Your task to perform on an android device: Open network settings Image 0: 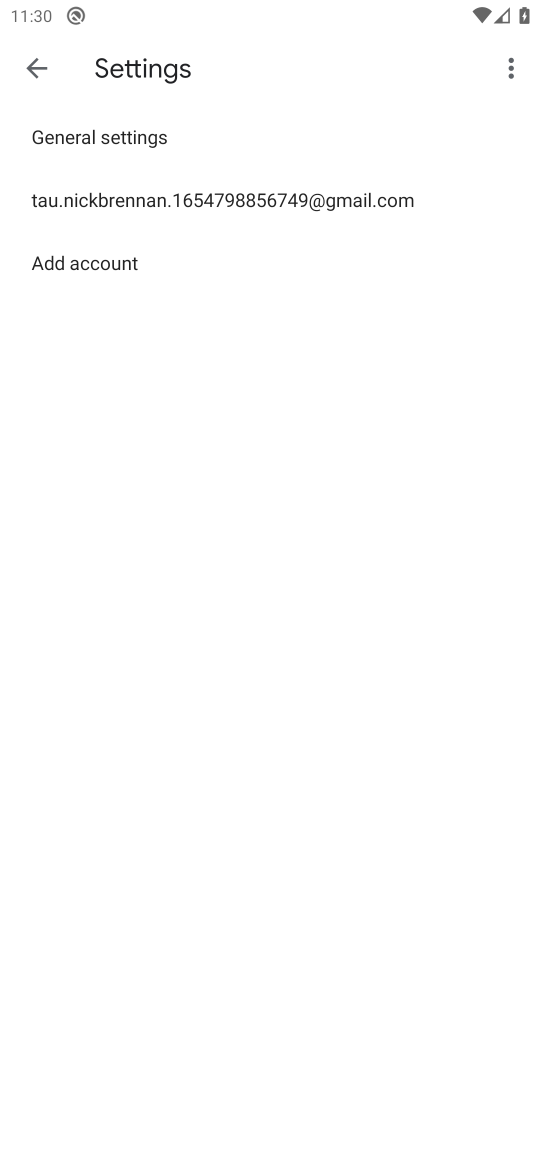
Step 0: press home button
Your task to perform on an android device: Open network settings Image 1: 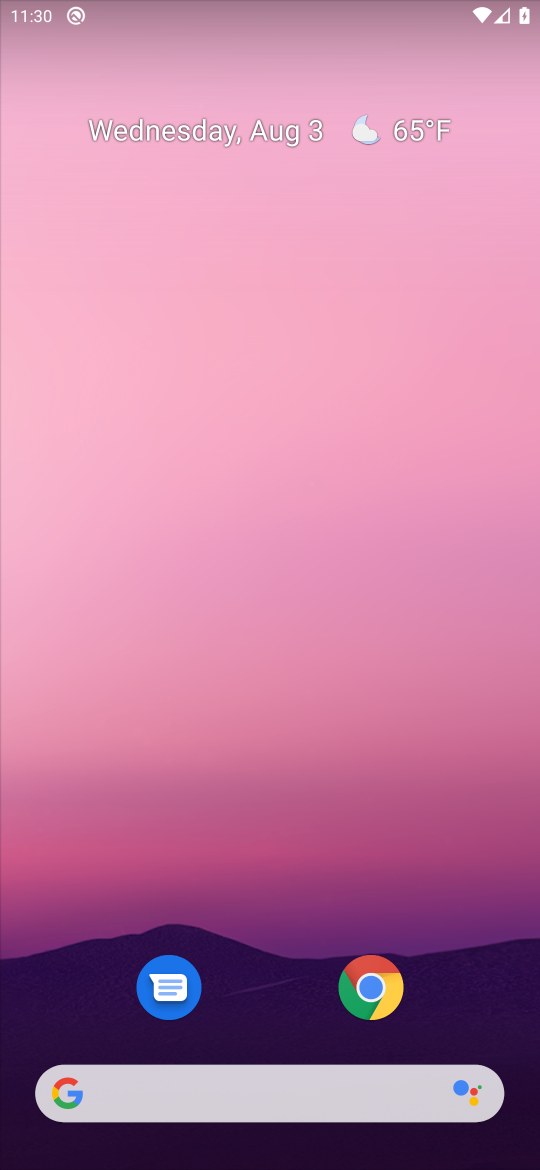
Step 1: drag from (205, 1070) to (143, 599)
Your task to perform on an android device: Open network settings Image 2: 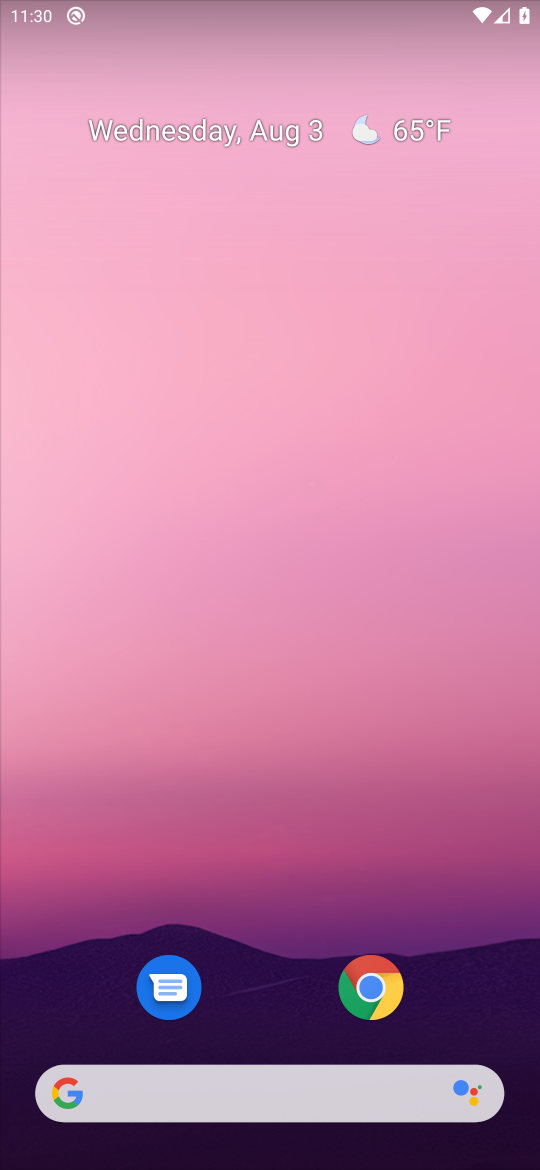
Step 2: drag from (280, 1058) to (220, 349)
Your task to perform on an android device: Open network settings Image 3: 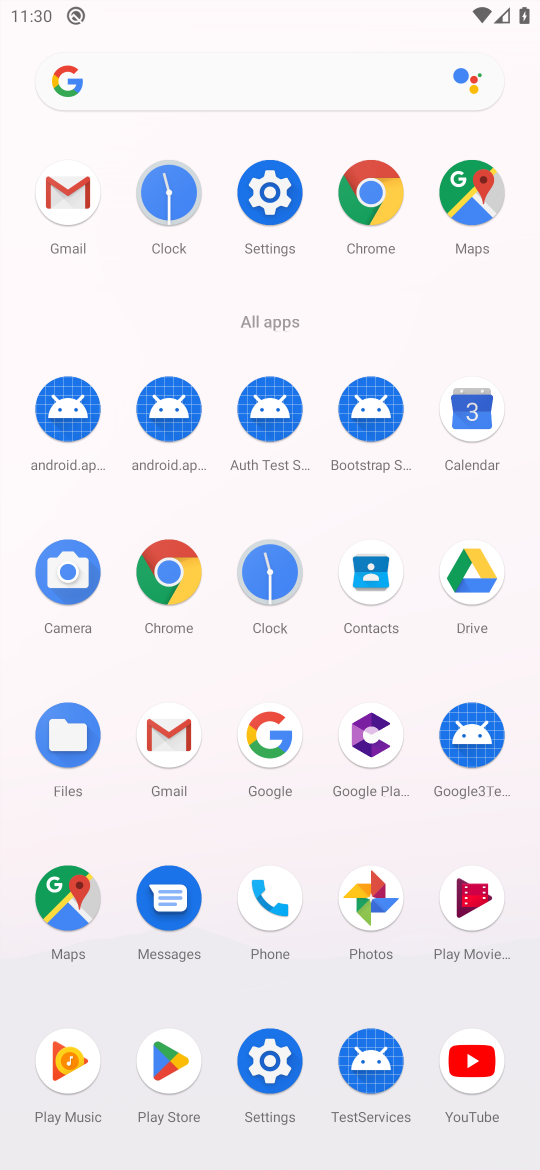
Step 3: click (266, 193)
Your task to perform on an android device: Open network settings Image 4: 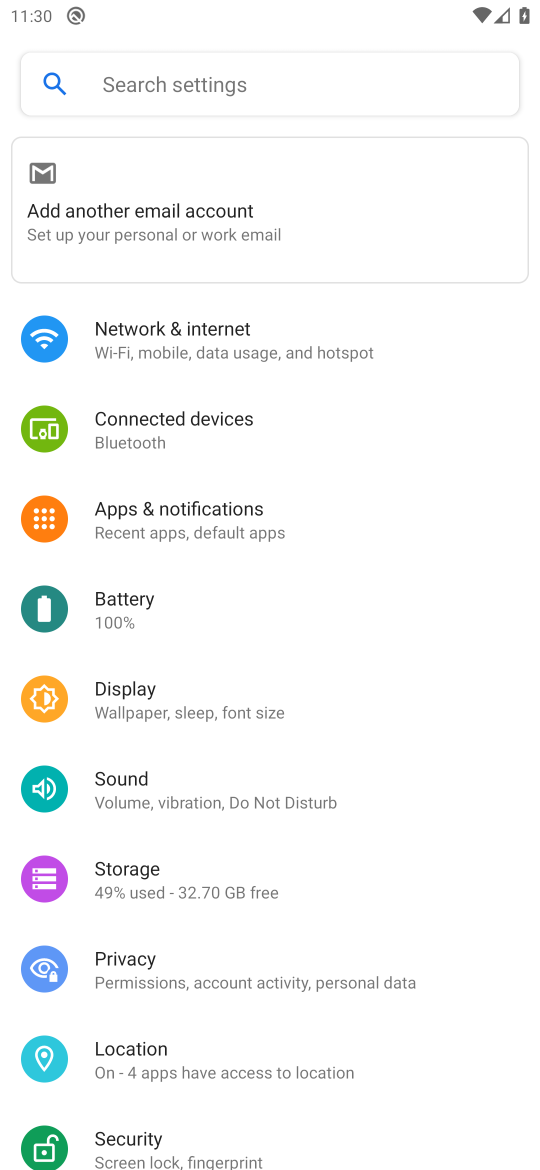
Step 4: click (258, 324)
Your task to perform on an android device: Open network settings Image 5: 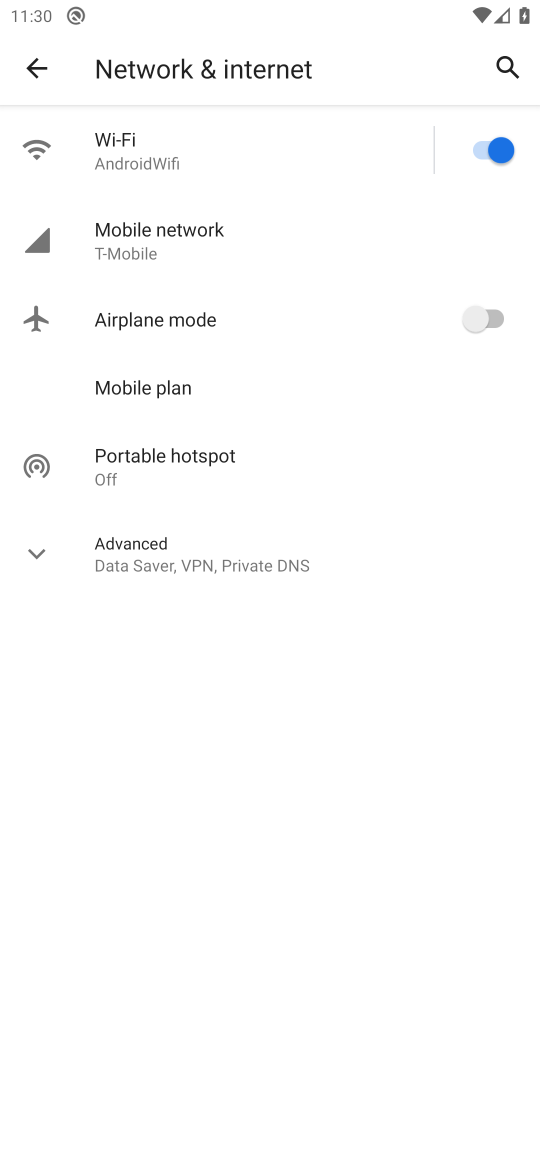
Step 5: click (158, 556)
Your task to perform on an android device: Open network settings Image 6: 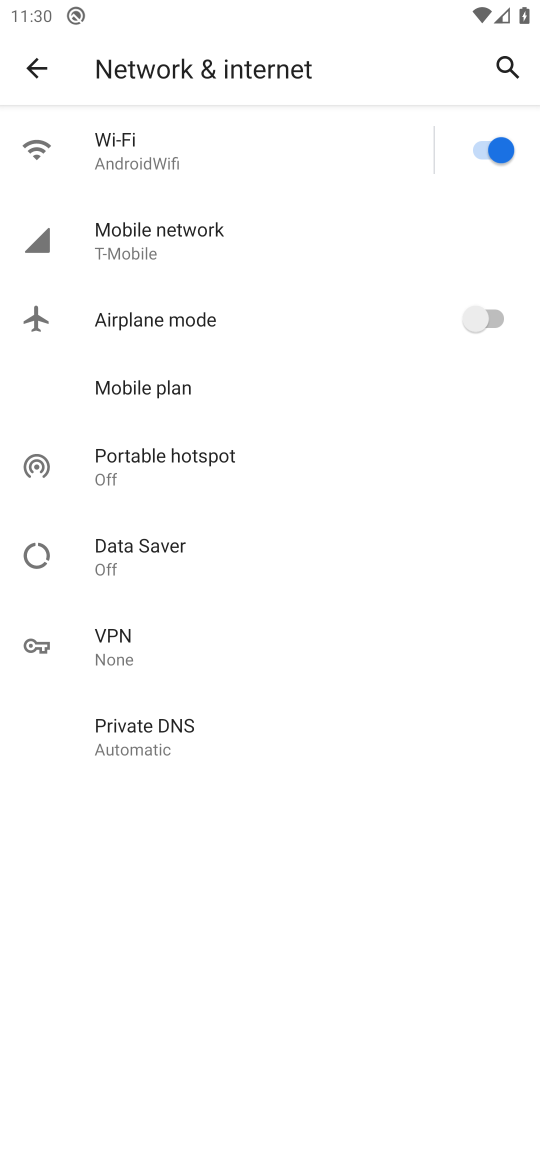
Step 6: click (154, 240)
Your task to perform on an android device: Open network settings Image 7: 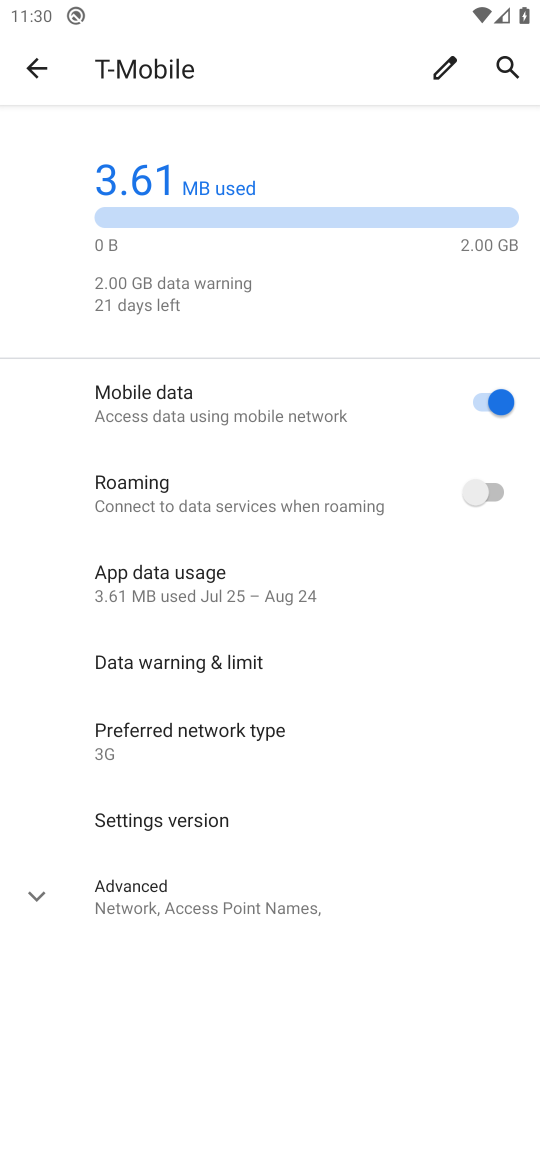
Step 7: click (120, 897)
Your task to perform on an android device: Open network settings Image 8: 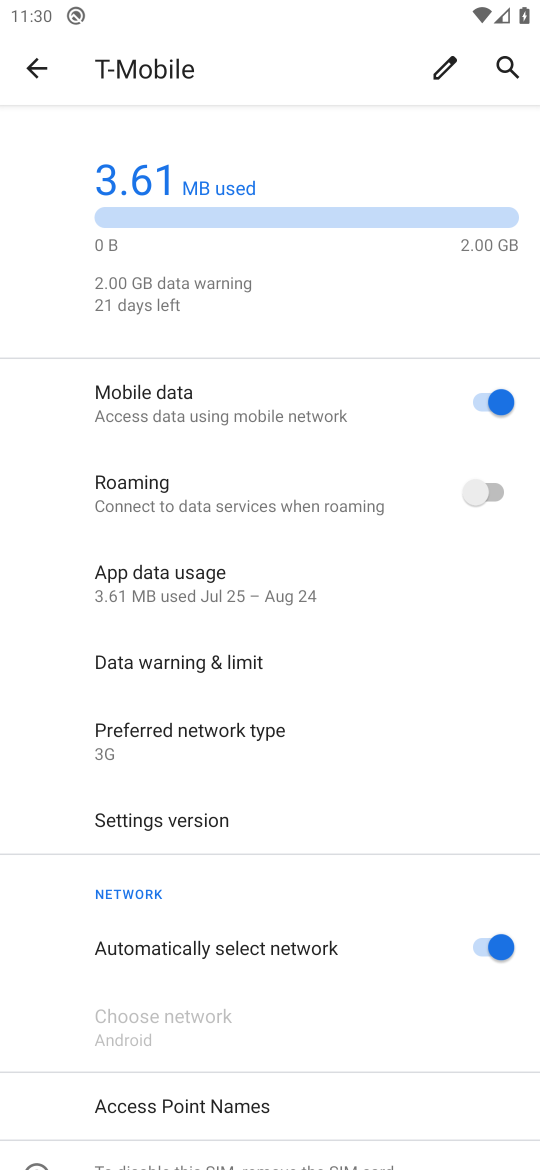
Step 8: task complete